Your task to perform on an android device: Open eBay Image 0: 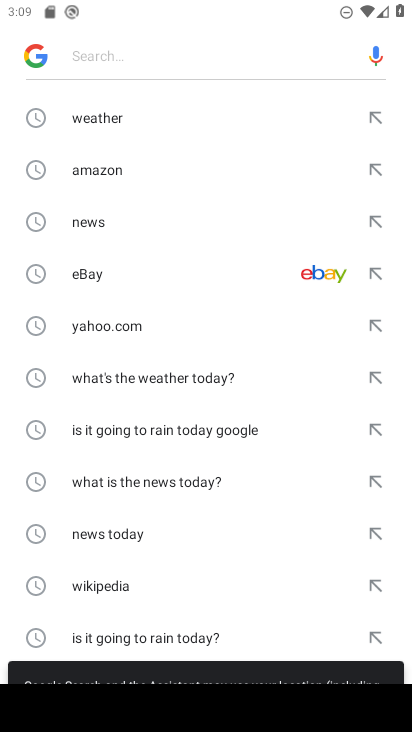
Step 0: press back button
Your task to perform on an android device: Open eBay Image 1: 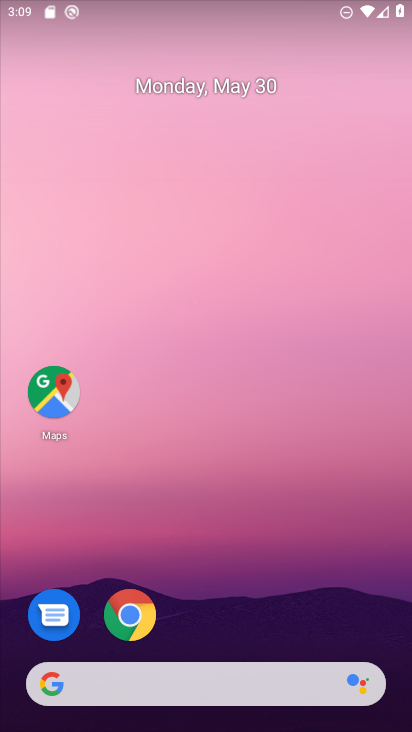
Step 1: click (147, 626)
Your task to perform on an android device: Open eBay Image 2: 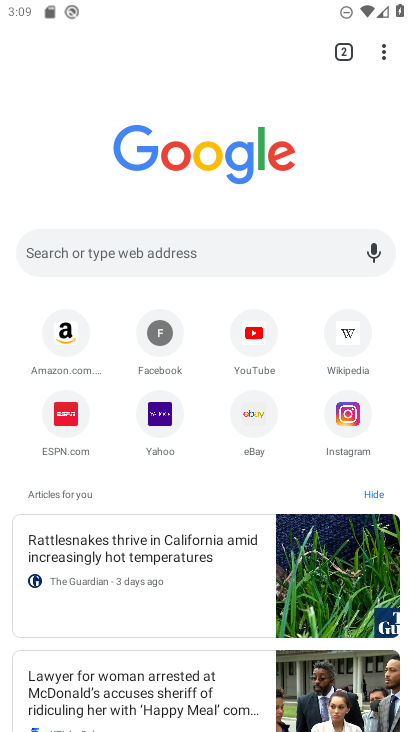
Step 2: click (252, 424)
Your task to perform on an android device: Open eBay Image 3: 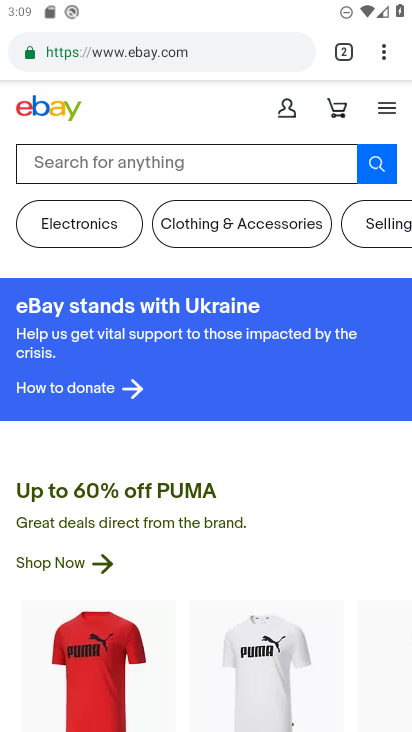
Step 3: task complete